Your task to perform on an android device: Open Google Maps and go to "Timeline" Image 0: 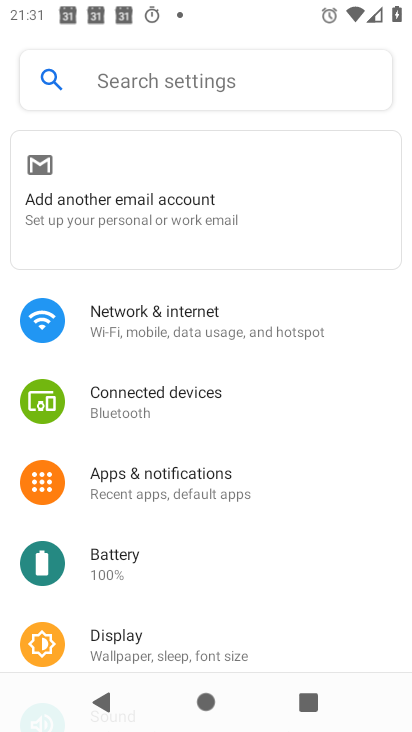
Step 0: press home button
Your task to perform on an android device: Open Google Maps and go to "Timeline" Image 1: 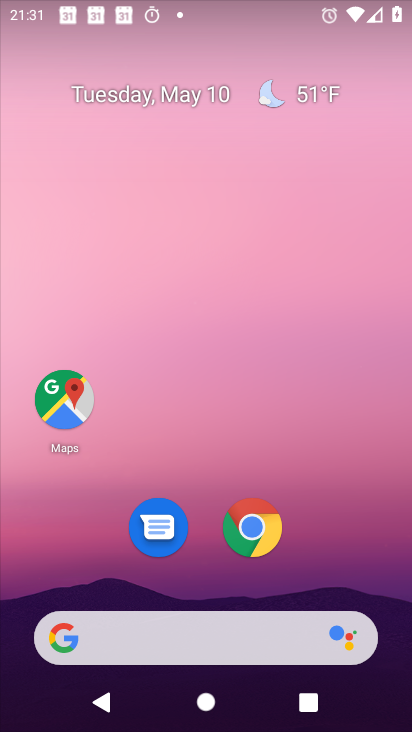
Step 1: click (67, 394)
Your task to perform on an android device: Open Google Maps and go to "Timeline" Image 2: 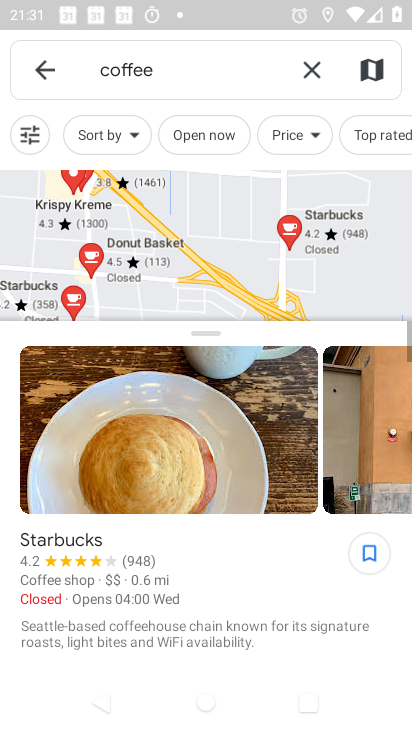
Step 2: click (29, 73)
Your task to perform on an android device: Open Google Maps and go to "Timeline" Image 3: 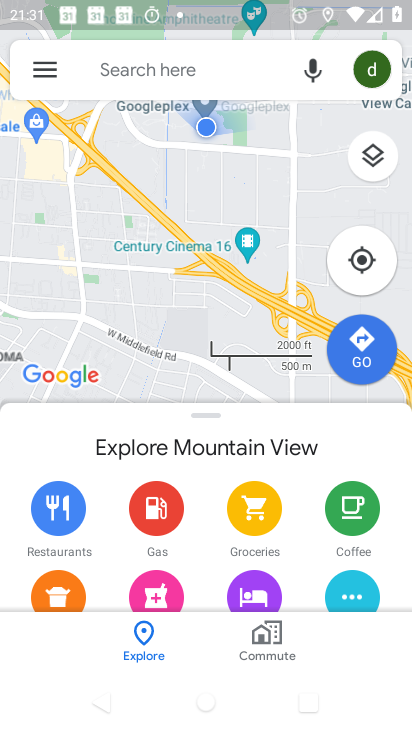
Step 3: click (47, 71)
Your task to perform on an android device: Open Google Maps and go to "Timeline" Image 4: 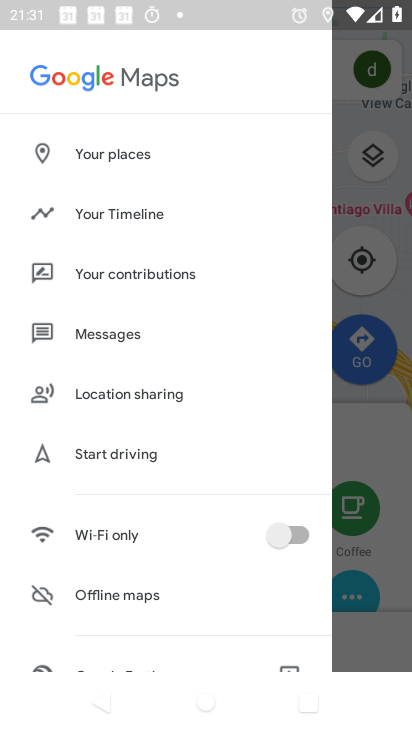
Step 4: click (112, 220)
Your task to perform on an android device: Open Google Maps and go to "Timeline" Image 5: 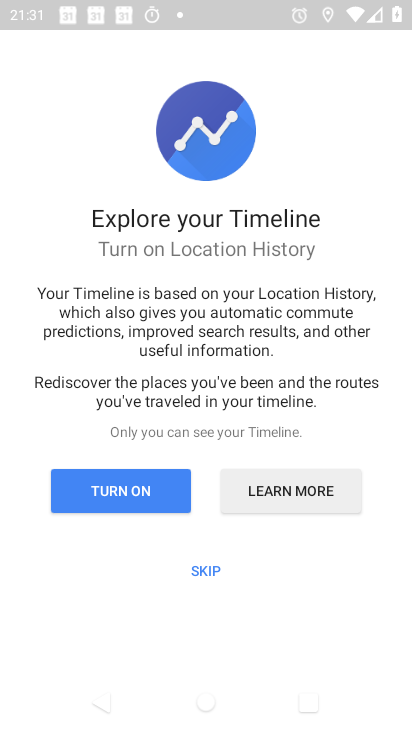
Step 5: task complete